Your task to perform on an android device: Play the latest video from the Huffington Post Image 0: 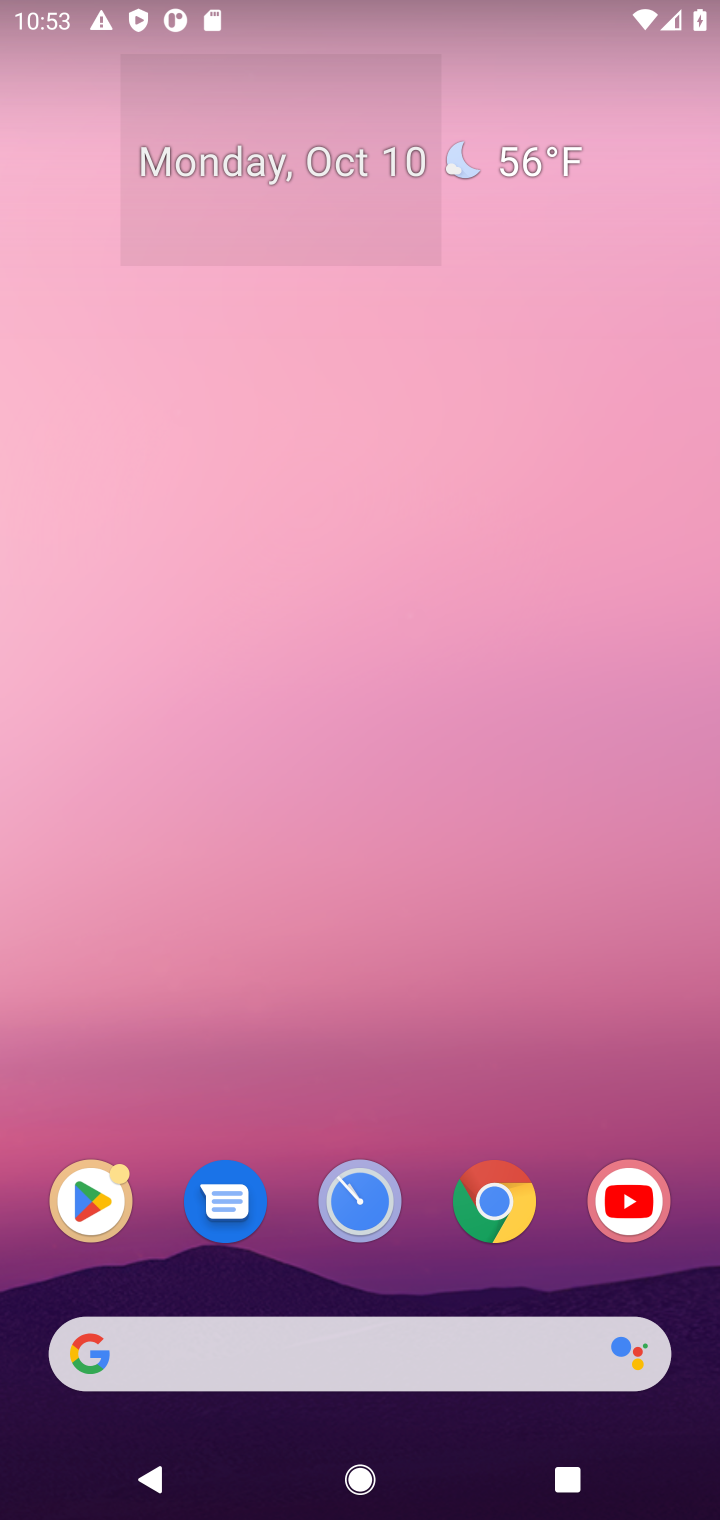
Step 0: click (93, 1358)
Your task to perform on an android device: Play the latest video from the Huffington Post Image 1: 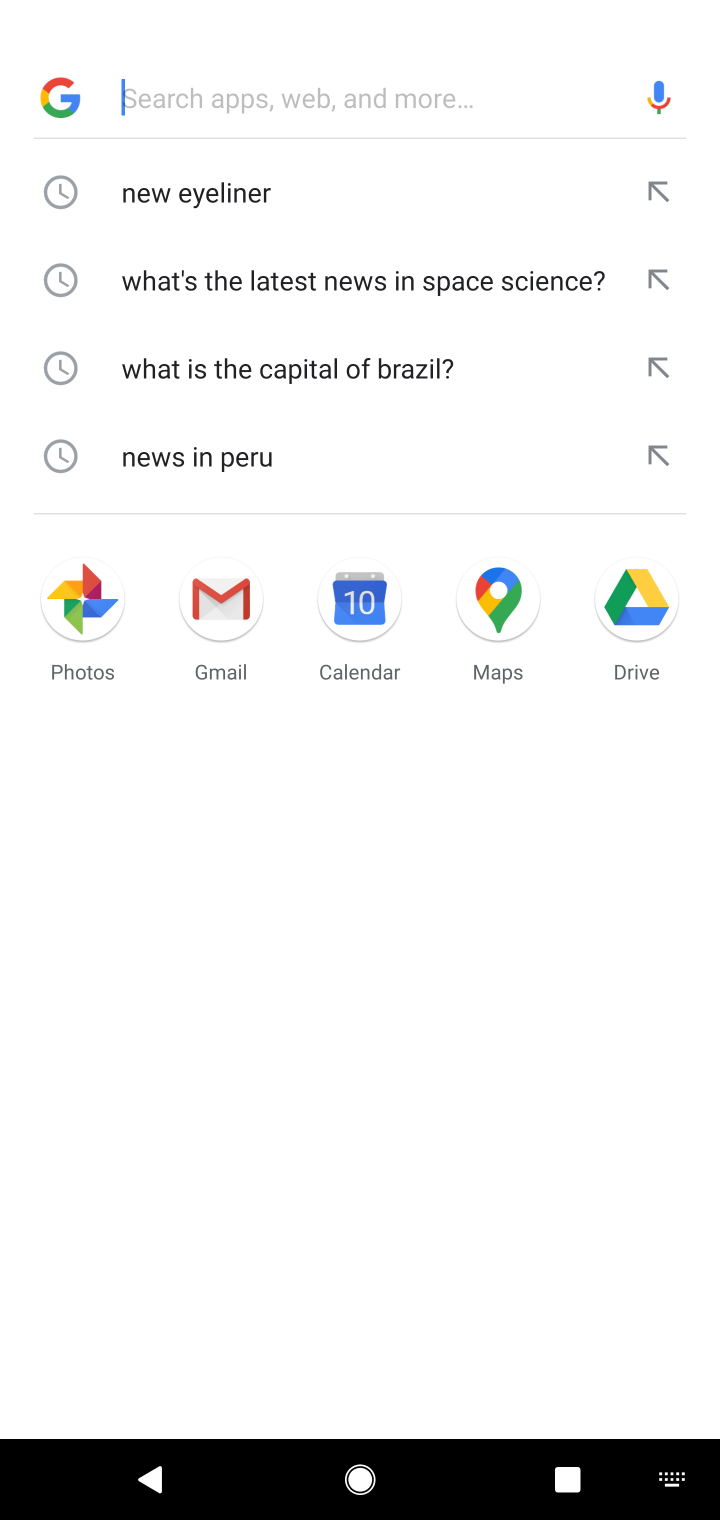
Step 1: click (264, 117)
Your task to perform on an android device: Play the latest video from the Huffington Post Image 2: 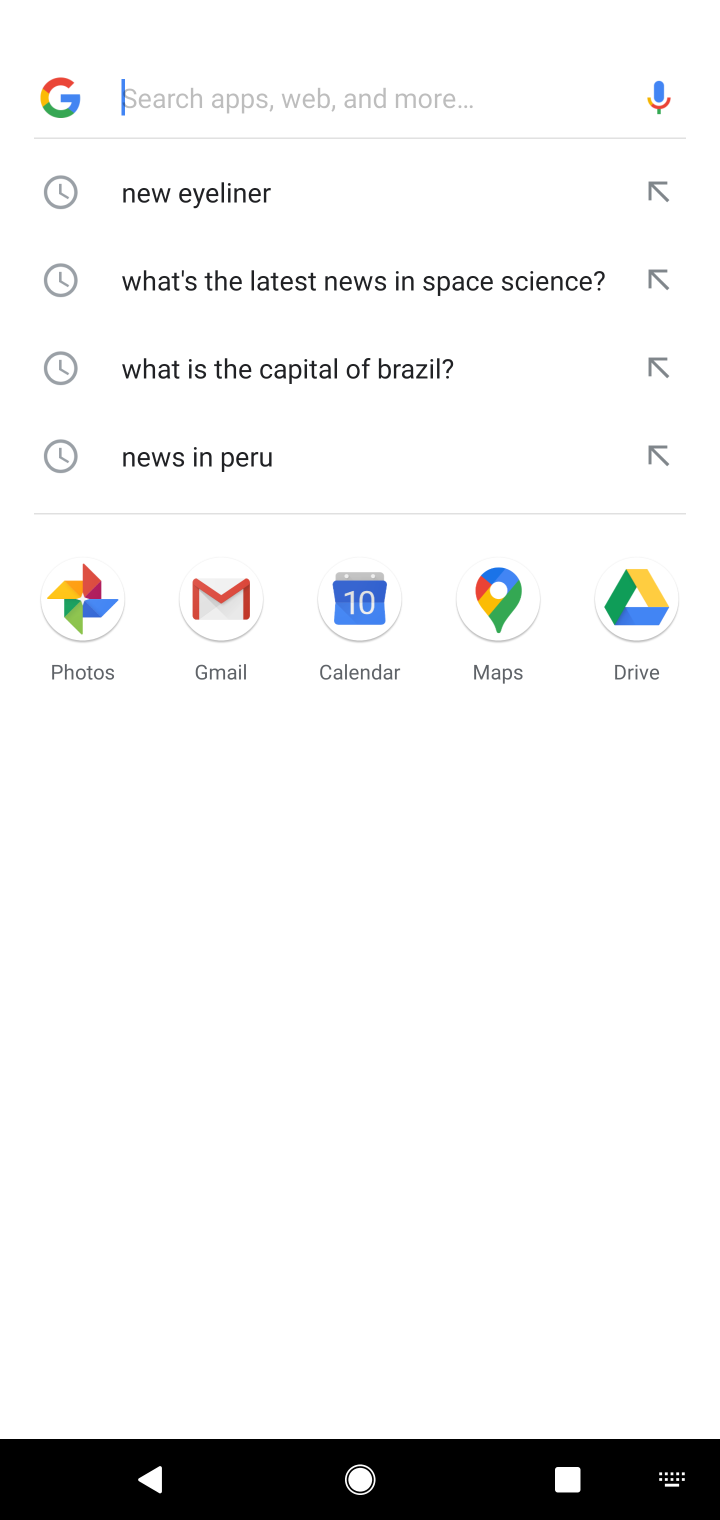
Step 2: type "Play the latest video from the Huffington Post"
Your task to perform on an android device: Play the latest video from the Huffington Post Image 3: 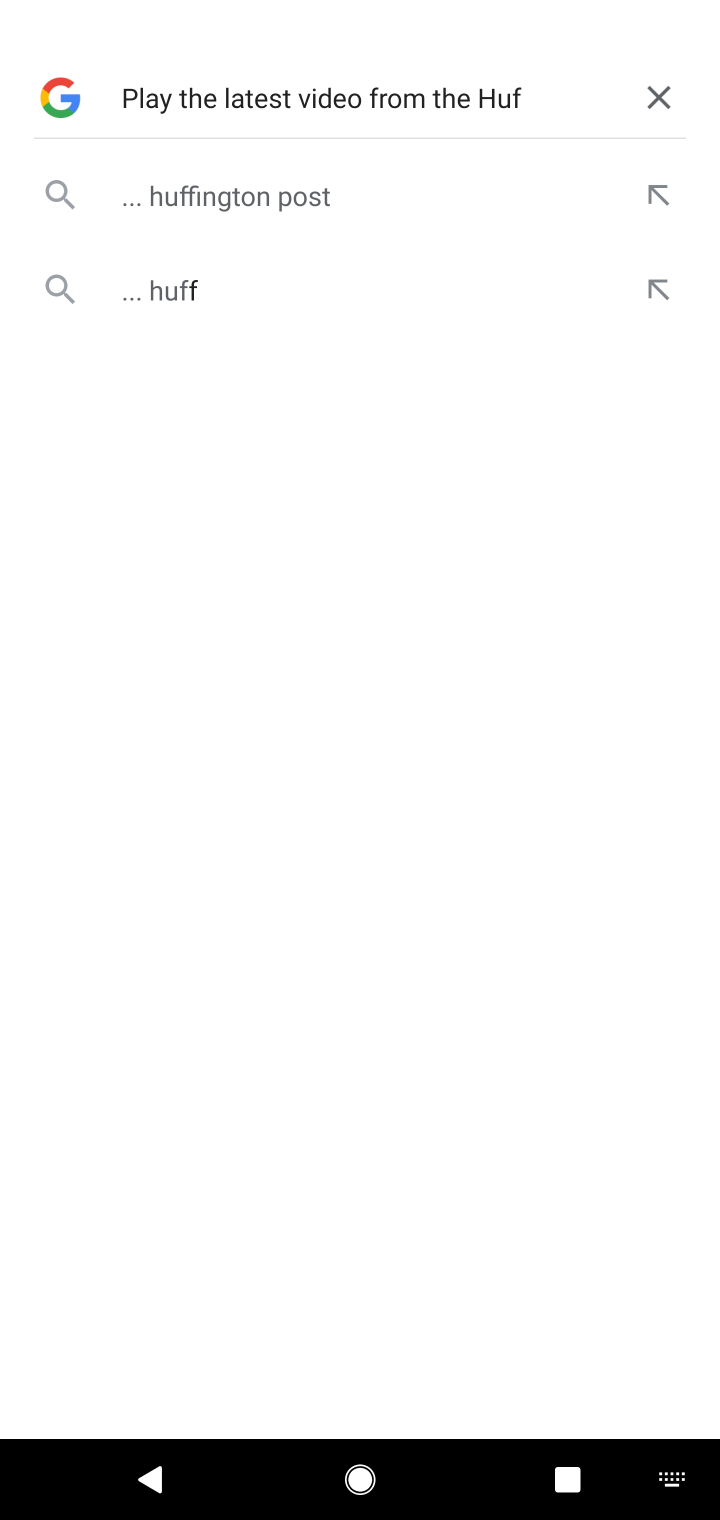
Step 3: click (271, 209)
Your task to perform on an android device: Play the latest video from the Huffington Post Image 4: 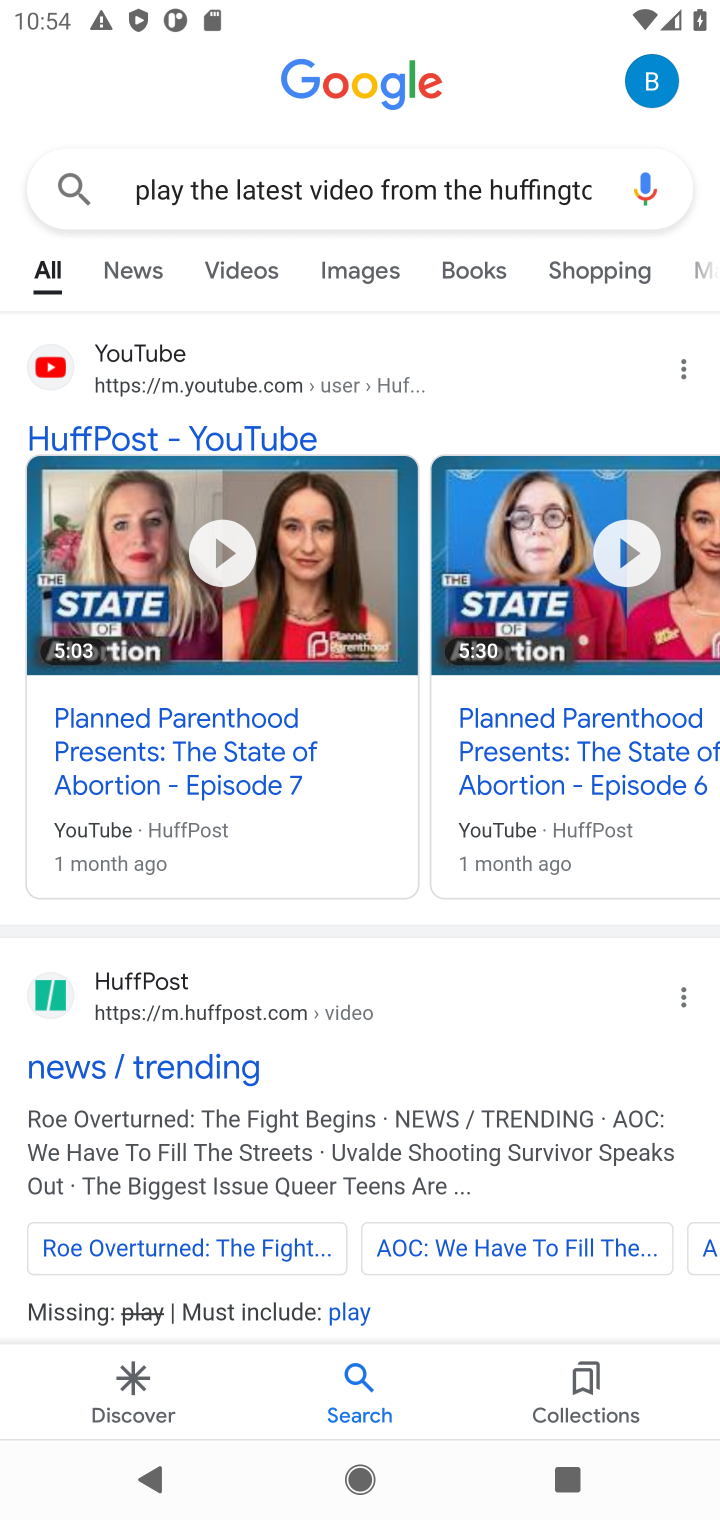
Step 4: click (154, 1075)
Your task to perform on an android device: Play the latest video from the Huffington Post Image 5: 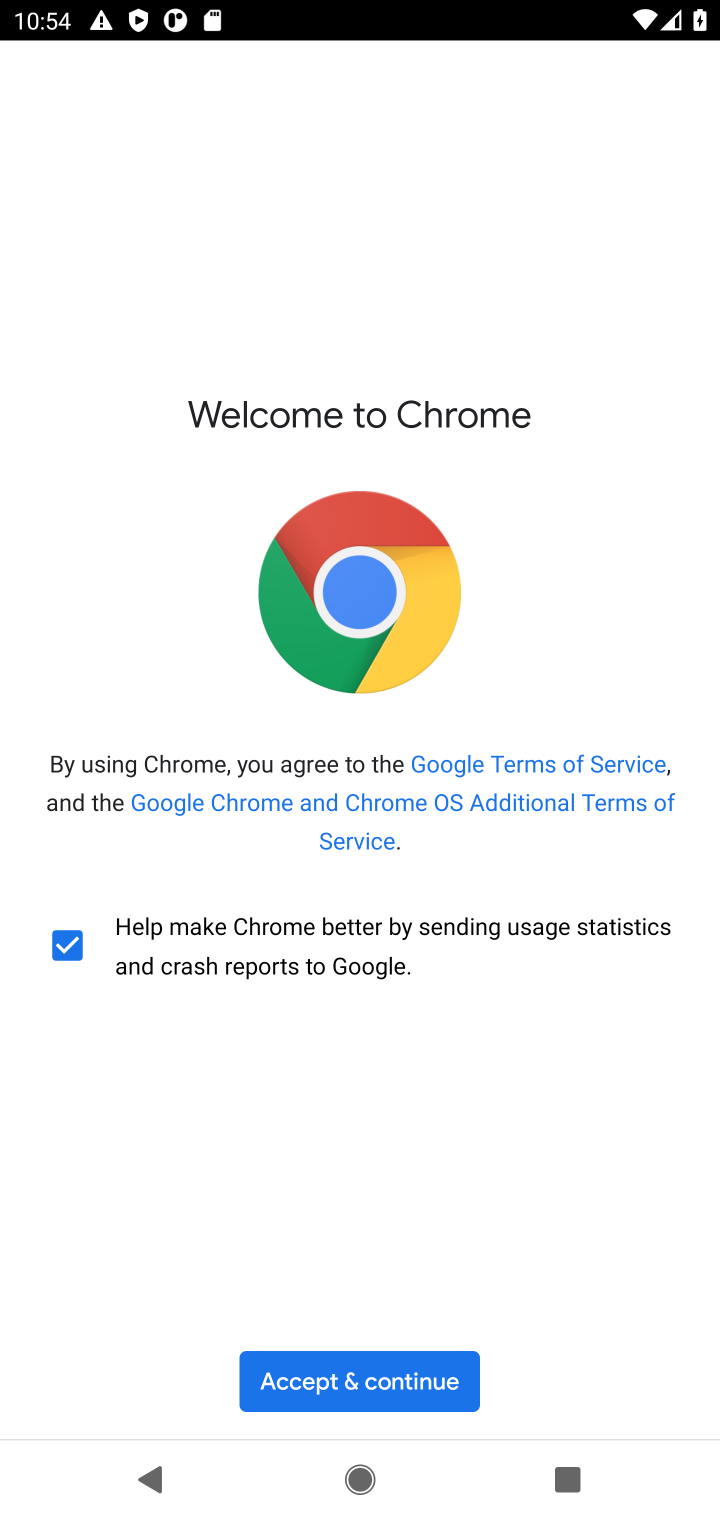
Step 5: task complete